Your task to perform on an android device: Open the web browser Image 0: 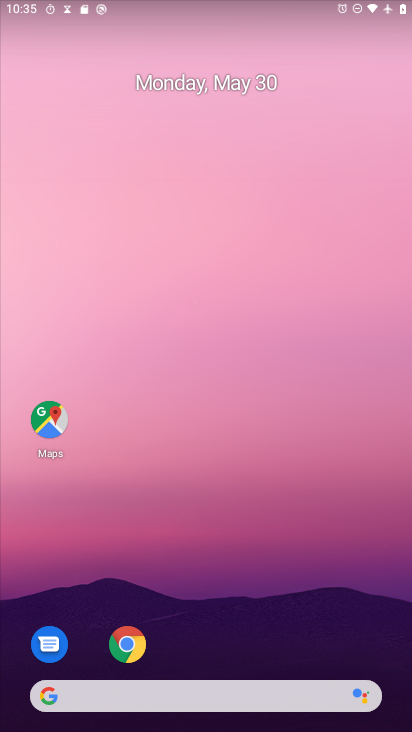
Step 0: drag from (242, 626) to (317, 26)
Your task to perform on an android device: Open the web browser Image 1: 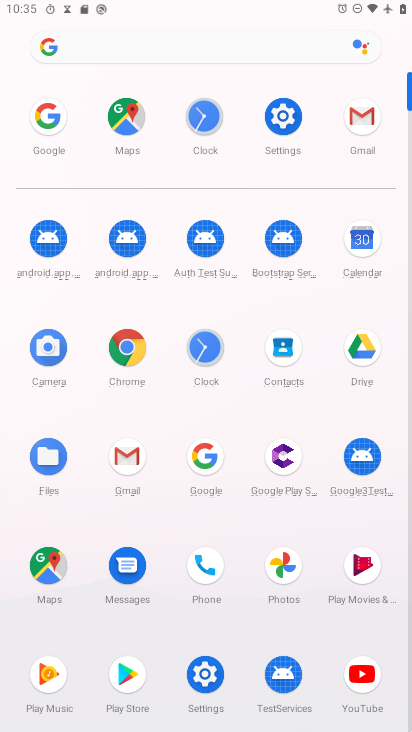
Step 1: click (203, 455)
Your task to perform on an android device: Open the web browser Image 2: 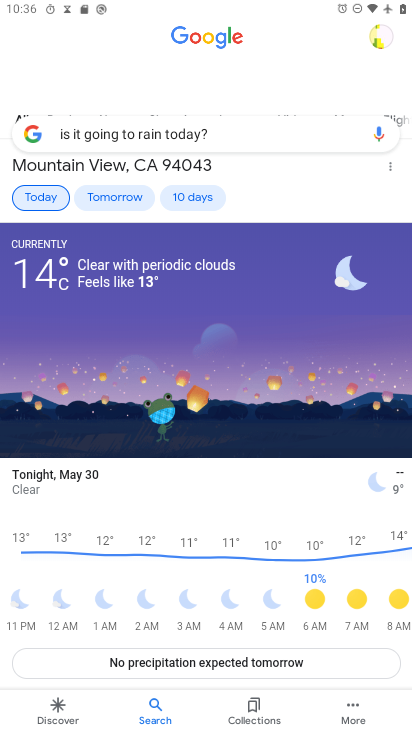
Step 2: task complete